Your task to perform on an android device: see sites visited before in the chrome app Image 0: 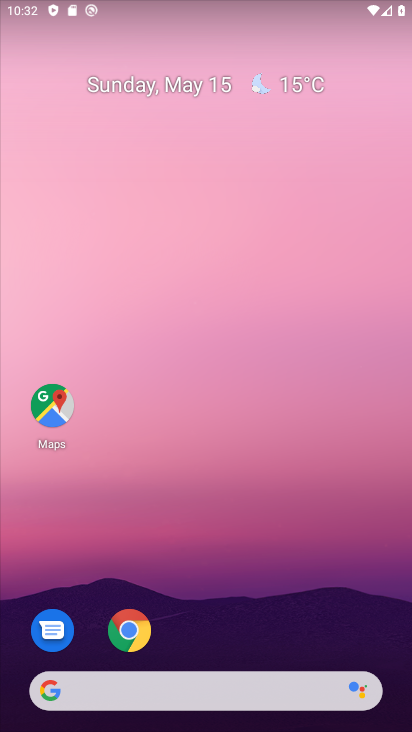
Step 0: click (126, 633)
Your task to perform on an android device: see sites visited before in the chrome app Image 1: 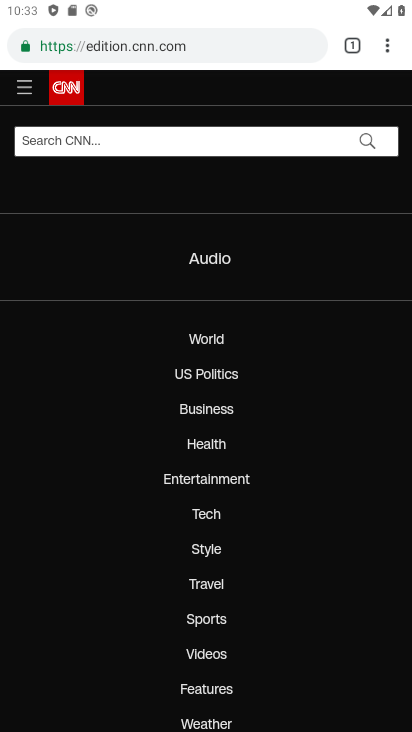
Step 1: click (389, 43)
Your task to perform on an android device: see sites visited before in the chrome app Image 2: 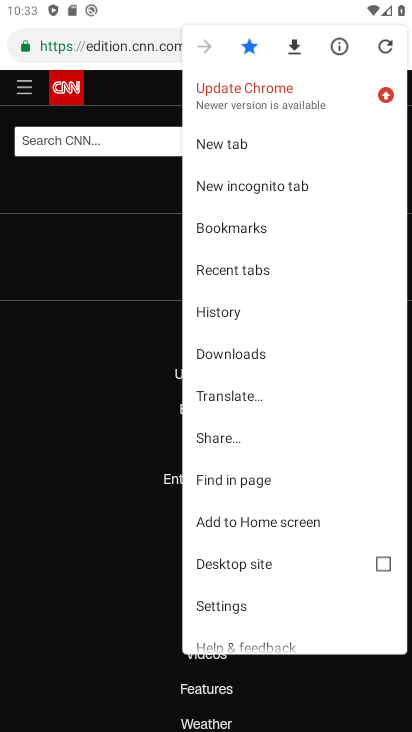
Step 2: click (226, 308)
Your task to perform on an android device: see sites visited before in the chrome app Image 3: 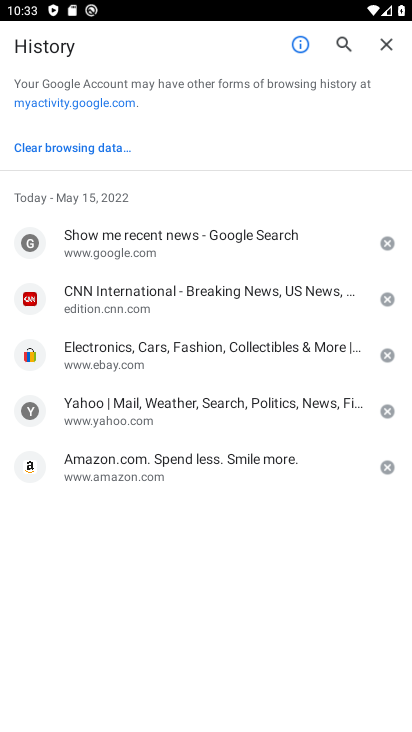
Step 3: task complete